Your task to perform on an android device: refresh tabs in the chrome app Image 0: 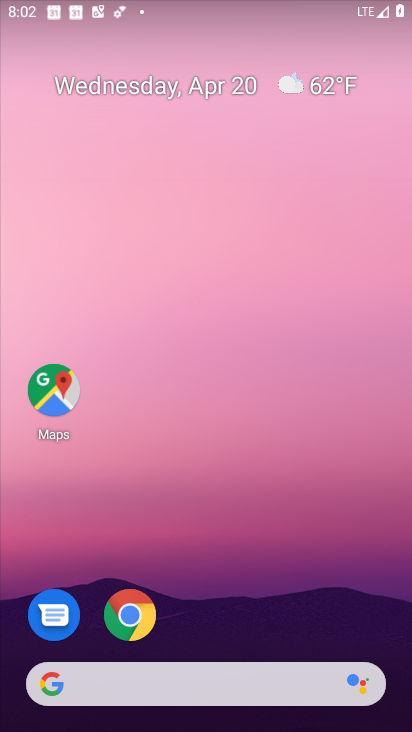
Step 0: click (139, 614)
Your task to perform on an android device: refresh tabs in the chrome app Image 1: 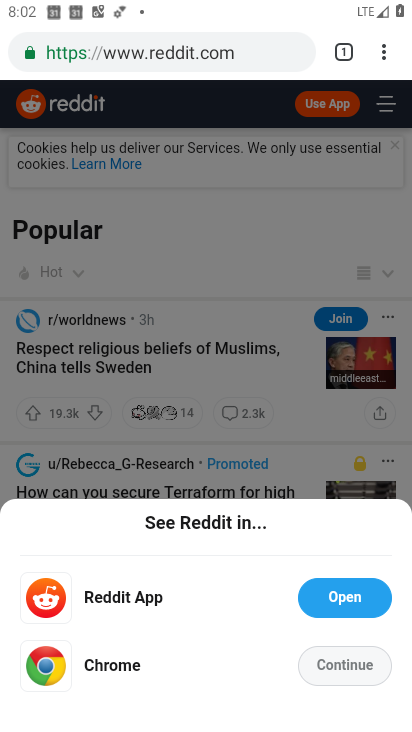
Step 1: click (352, 670)
Your task to perform on an android device: refresh tabs in the chrome app Image 2: 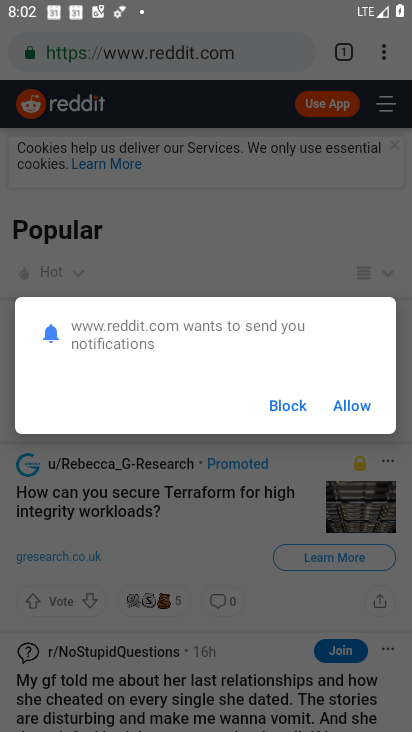
Step 2: click (386, 50)
Your task to perform on an android device: refresh tabs in the chrome app Image 3: 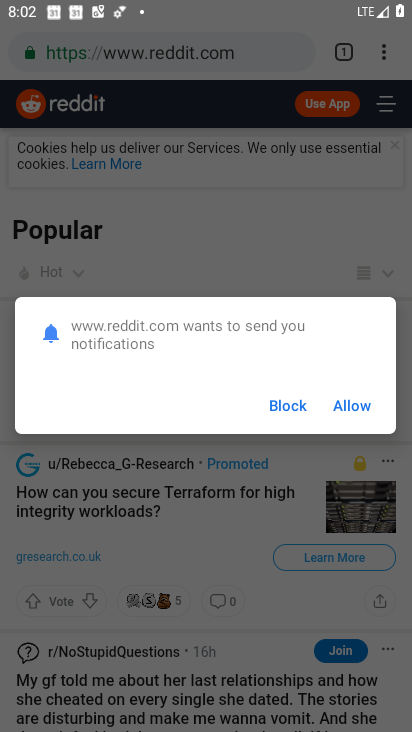
Step 3: click (288, 410)
Your task to perform on an android device: refresh tabs in the chrome app Image 4: 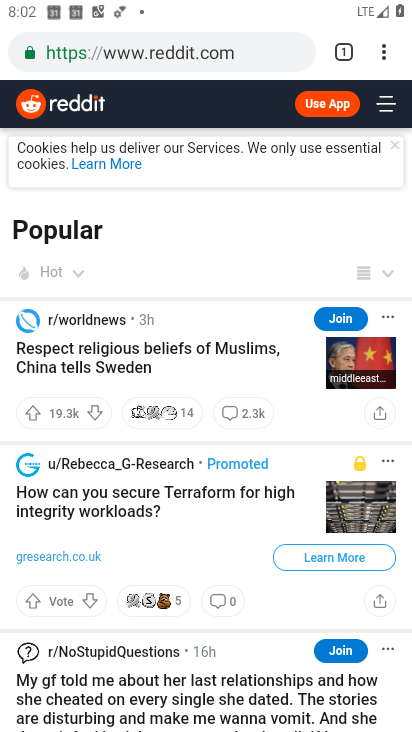
Step 4: click (379, 48)
Your task to perform on an android device: refresh tabs in the chrome app Image 5: 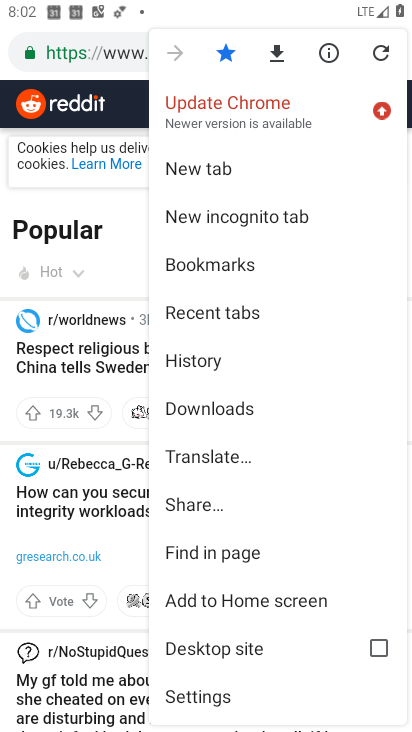
Step 5: click (382, 51)
Your task to perform on an android device: refresh tabs in the chrome app Image 6: 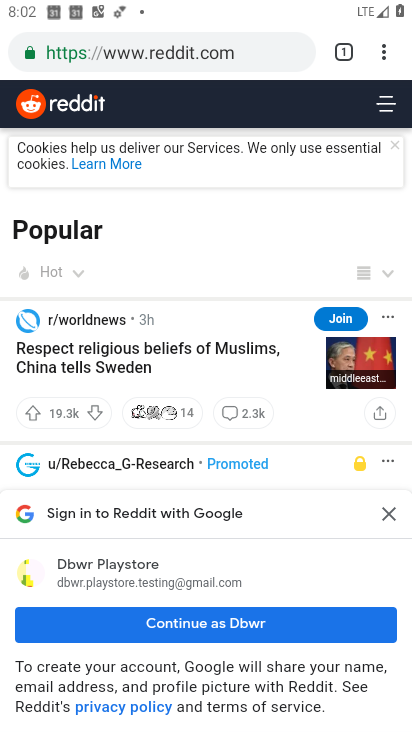
Step 6: press home button
Your task to perform on an android device: refresh tabs in the chrome app Image 7: 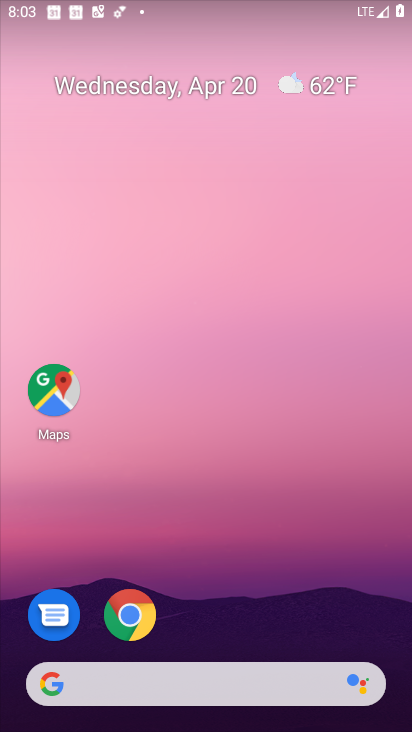
Step 7: click (126, 608)
Your task to perform on an android device: refresh tabs in the chrome app Image 8: 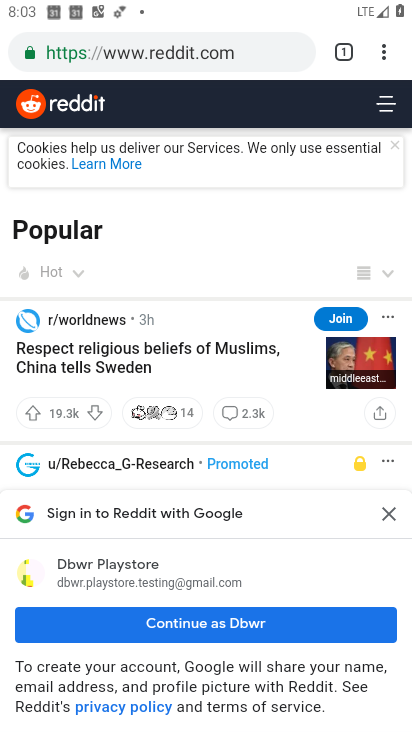
Step 8: click (390, 510)
Your task to perform on an android device: refresh tabs in the chrome app Image 9: 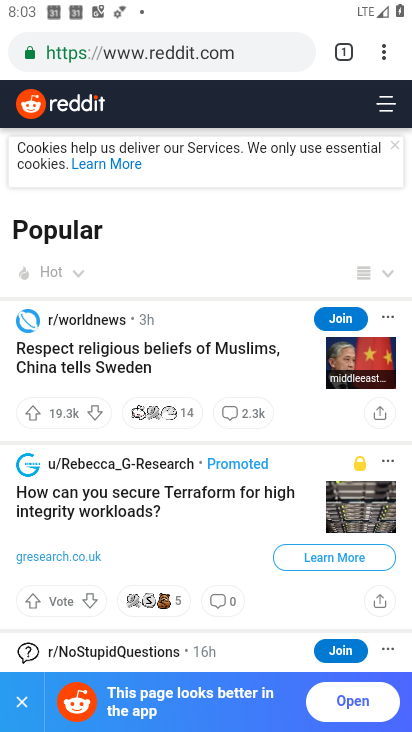
Step 9: click (381, 45)
Your task to perform on an android device: refresh tabs in the chrome app Image 10: 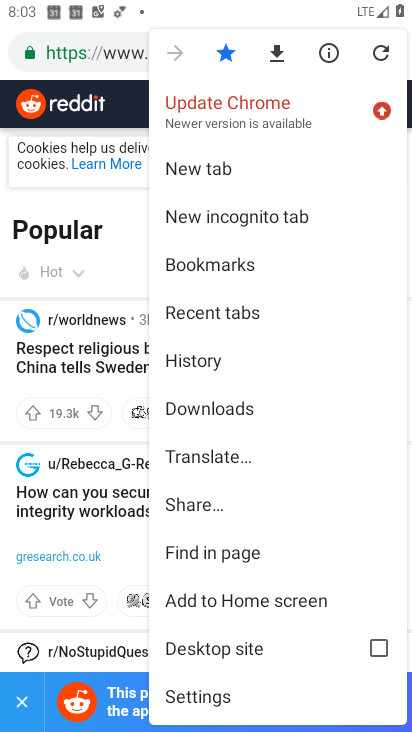
Step 10: click (381, 50)
Your task to perform on an android device: refresh tabs in the chrome app Image 11: 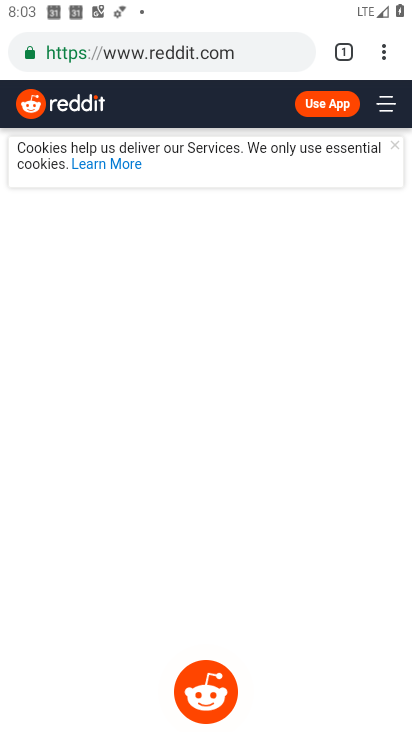
Step 11: task complete